Your task to perform on an android device: check storage Image 0: 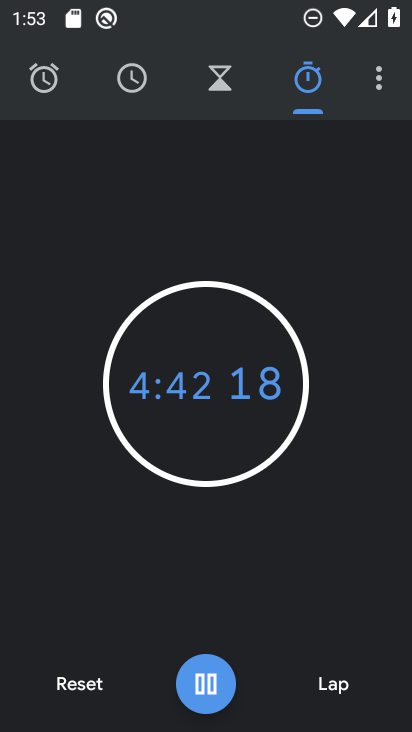
Step 0: press home button
Your task to perform on an android device: check storage Image 1: 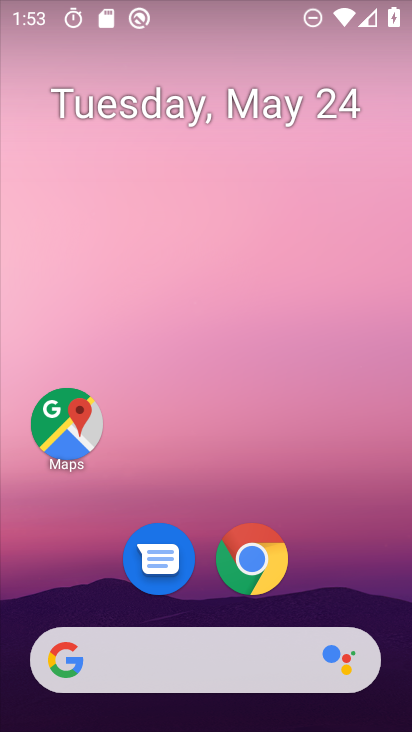
Step 1: drag from (391, 656) to (363, 283)
Your task to perform on an android device: check storage Image 2: 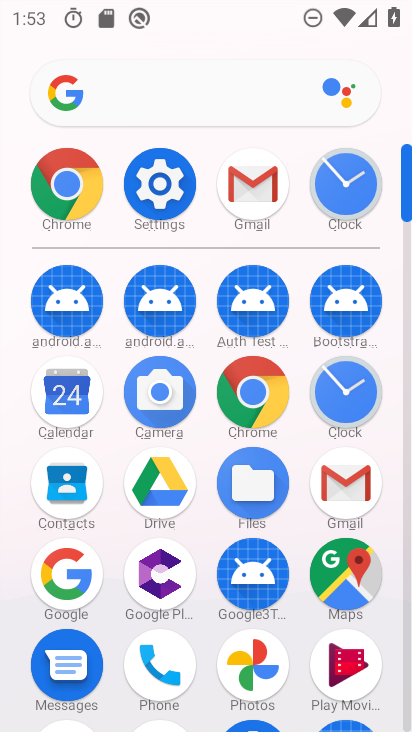
Step 2: click (166, 197)
Your task to perform on an android device: check storage Image 3: 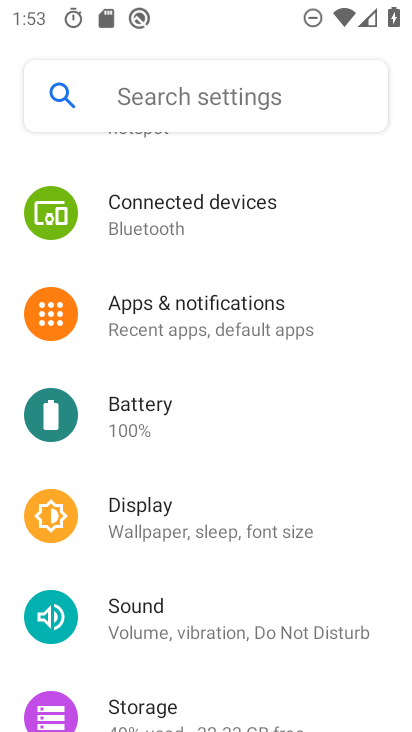
Step 3: drag from (360, 631) to (377, 289)
Your task to perform on an android device: check storage Image 4: 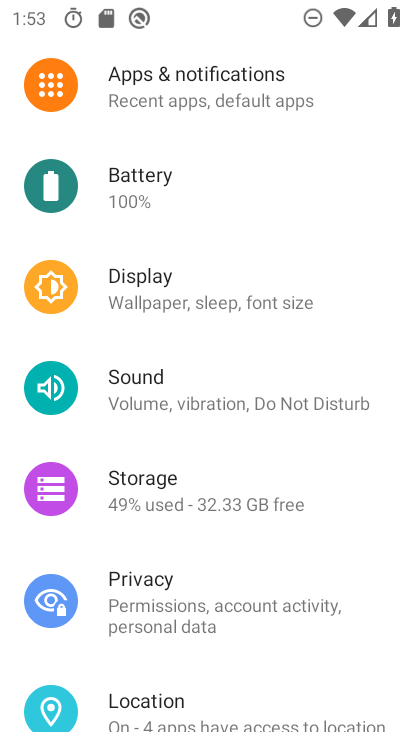
Step 4: click (132, 487)
Your task to perform on an android device: check storage Image 5: 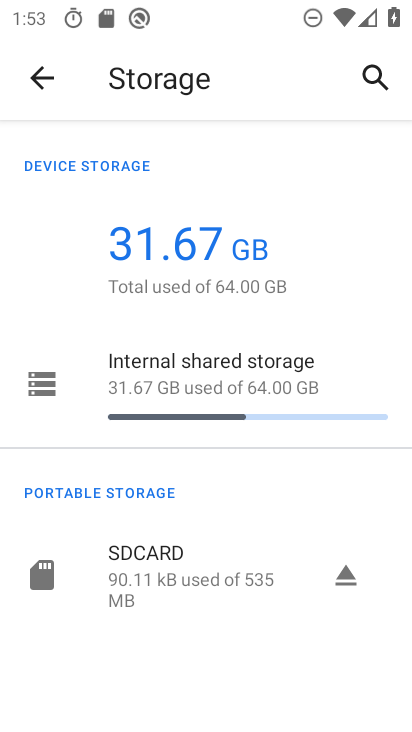
Step 5: task complete